Your task to perform on an android device: What's on my calendar tomorrow? Image 0: 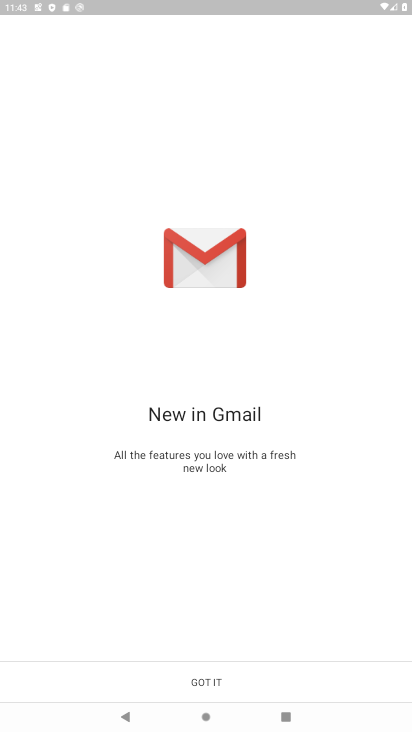
Step 0: click (204, 694)
Your task to perform on an android device: What's on my calendar tomorrow? Image 1: 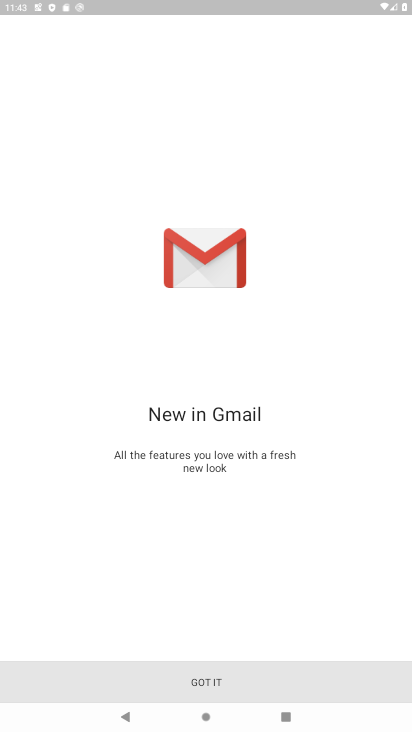
Step 1: click (207, 685)
Your task to perform on an android device: What's on my calendar tomorrow? Image 2: 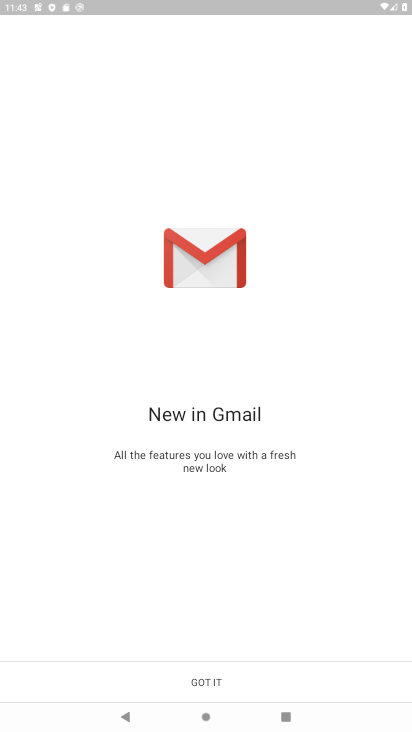
Step 2: click (208, 685)
Your task to perform on an android device: What's on my calendar tomorrow? Image 3: 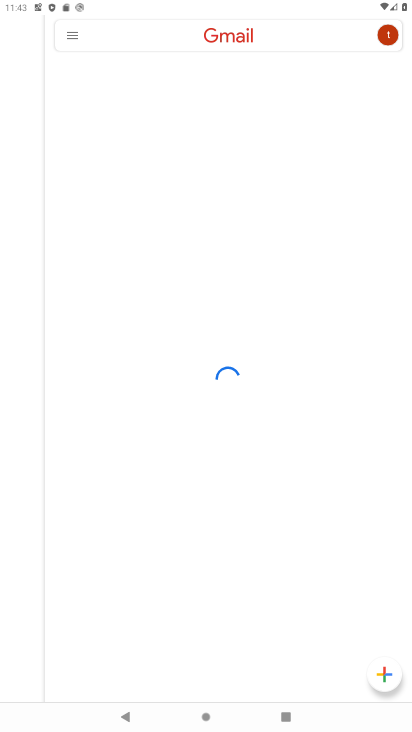
Step 3: press back button
Your task to perform on an android device: What's on my calendar tomorrow? Image 4: 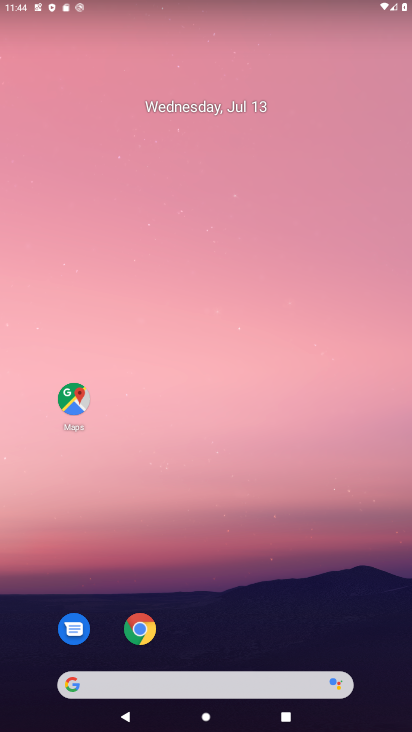
Step 4: drag from (255, 680) to (246, 160)
Your task to perform on an android device: What's on my calendar tomorrow? Image 5: 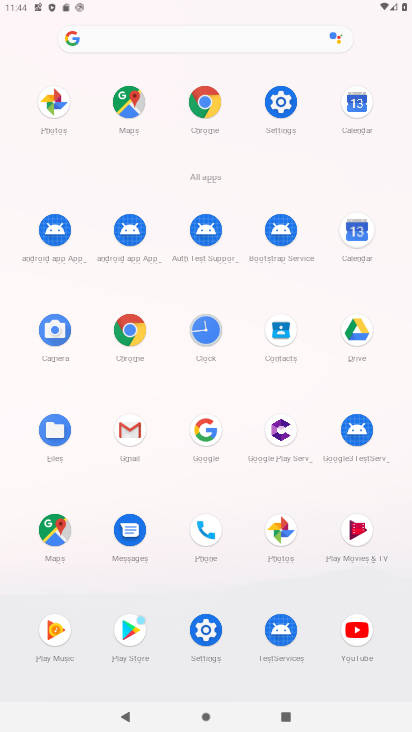
Step 5: click (354, 240)
Your task to perform on an android device: What's on my calendar tomorrow? Image 6: 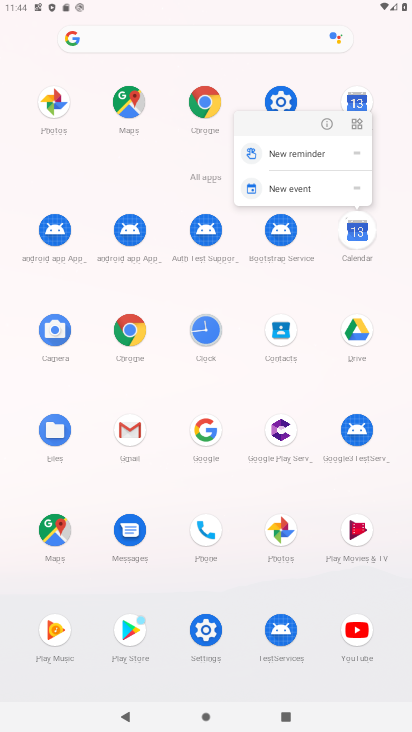
Step 6: click (356, 237)
Your task to perform on an android device: What's on my calendar tomorrow? Image 7: 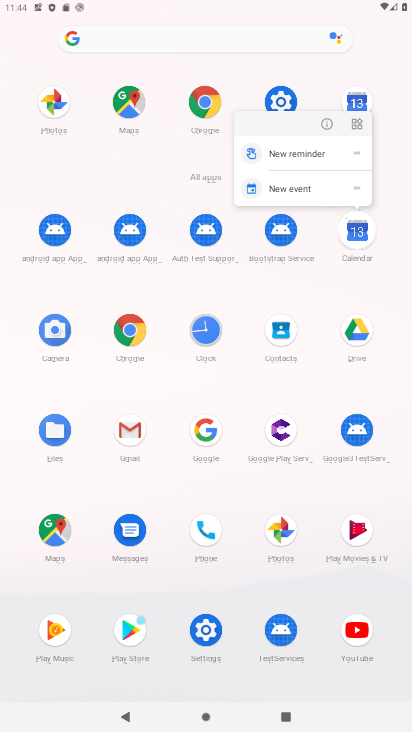
Step 7: click (360, 238)
Your task to perform on an android device: What's on my calendar tomorrow? Image 8: 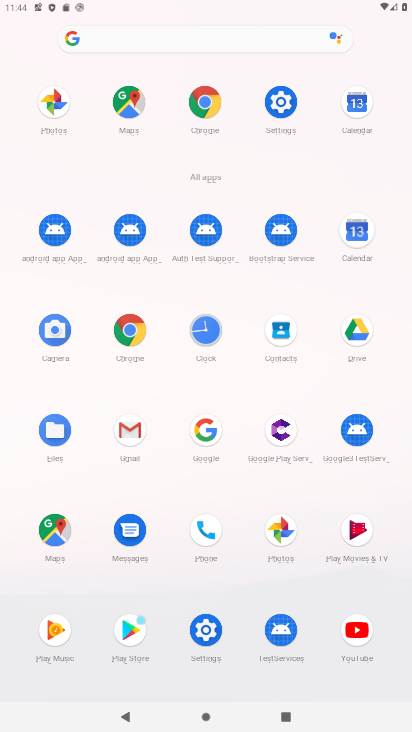
Step 8: click (360, 236)
Your task to perform on an android device: What's on my calendar tomorrow? Image 9: 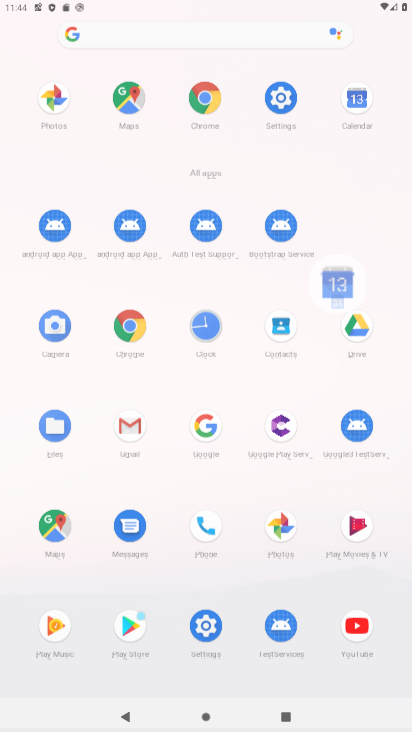
Step 9: click (359, 236)
Your task to perform on an android device: What's on my calendar tomorrow? Image 10: 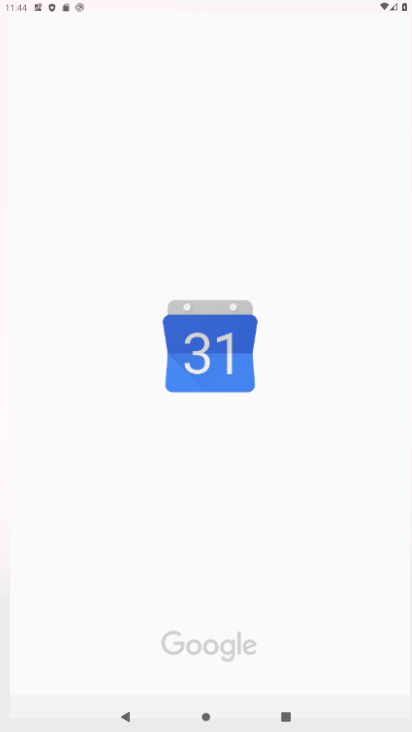
Step 10: click (359, 236)
Your task to perform on an android device: What's on my calendar tomorrow? Image 11: 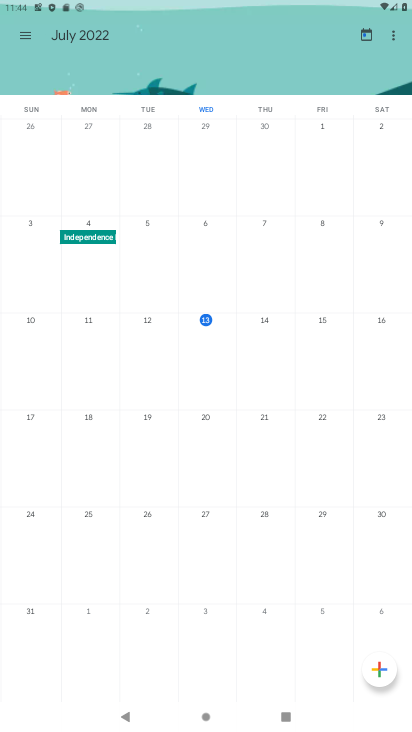
Step 11: click (325, 321)
Your task to perform on an android device: What's on my calendar tomorrow? Image 12: 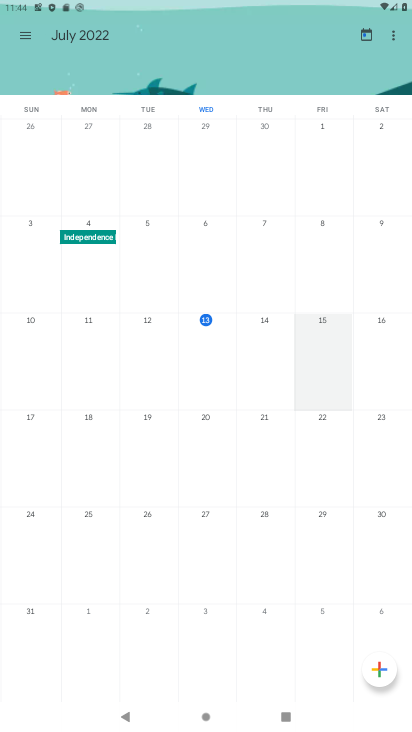
Step 12: click (325, 321)
Your task to perform on an android device: What's on my calendar tomorrow? Image 13: 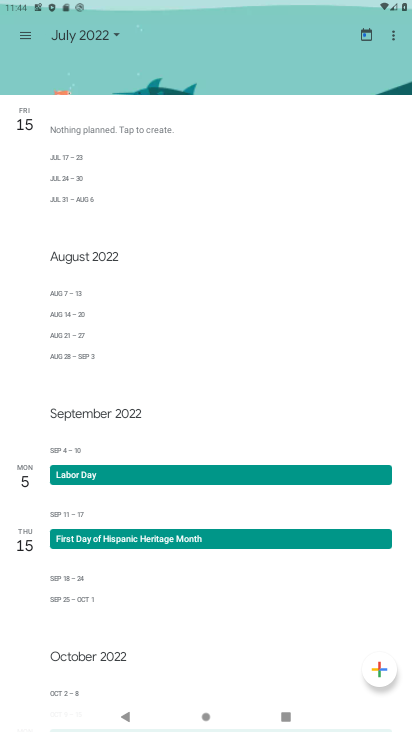
Step 13: click (325, 321)
Your task to perform on an android device: What's on my calendar tomorrow? Image 14: 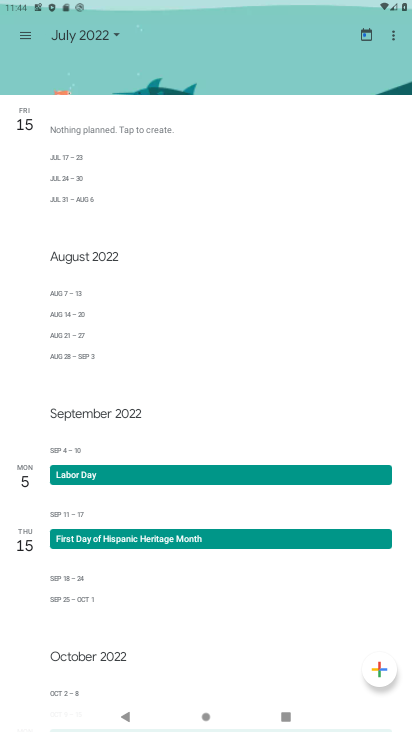
Step 14: task complete